Your task to perform on an android device: Open calendar and show me the first week of next month Image 0: 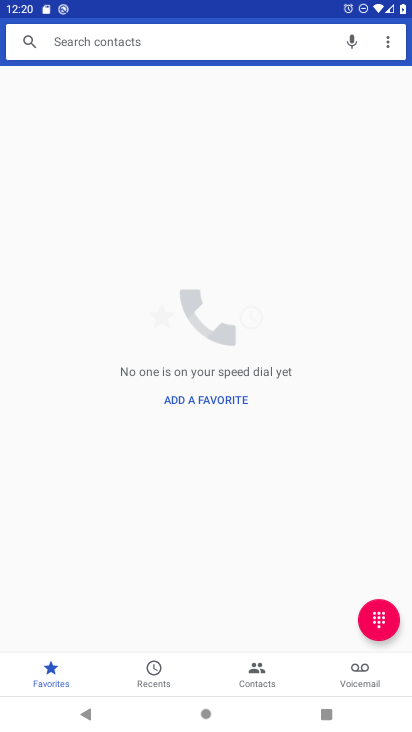
Step 0: press home button
Your task to perform on an android device: Open calendar and show me the first week of next month Image 1: 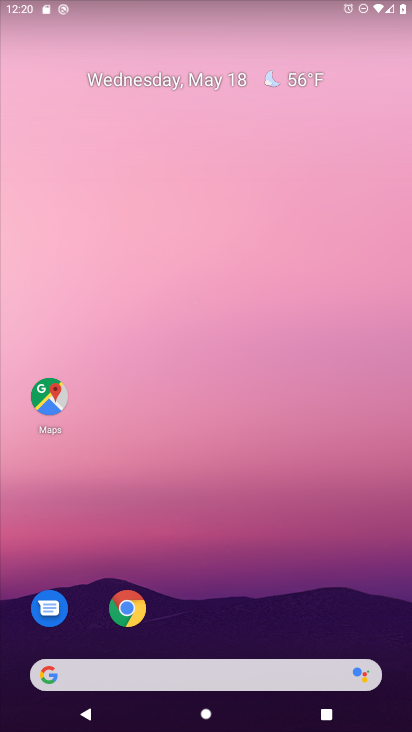
Step 1: drag from (279, 680) to (334, 115)
Your task to perform on an android device: Open calendar and show me the first week of next month Image 2: 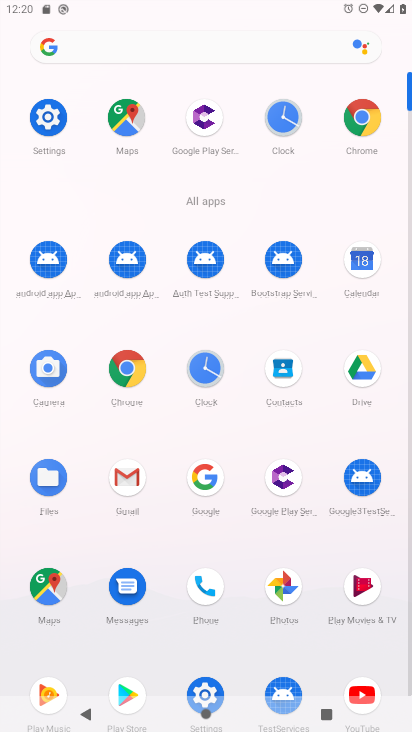
Step 2: click (353, 275)
Your task to perform on an android device: Open calendar and show me the first week of next month Image 3: 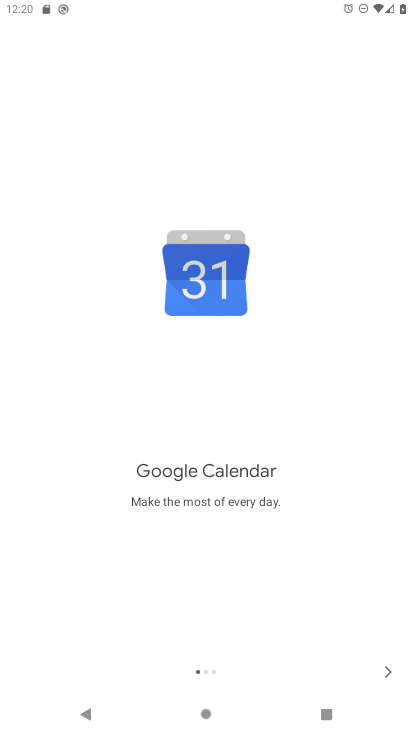
Step 3: click (376, 670)
Your task to perform on an android device: Open calendar and show me the first week of next month Image 4: 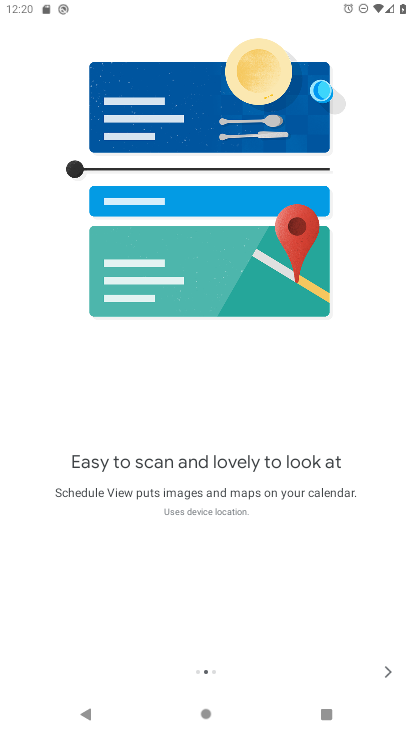
Step 4: click (376, 670)
Your task to perform on an android device: Open calendar and show me the first week of next month Image 5: 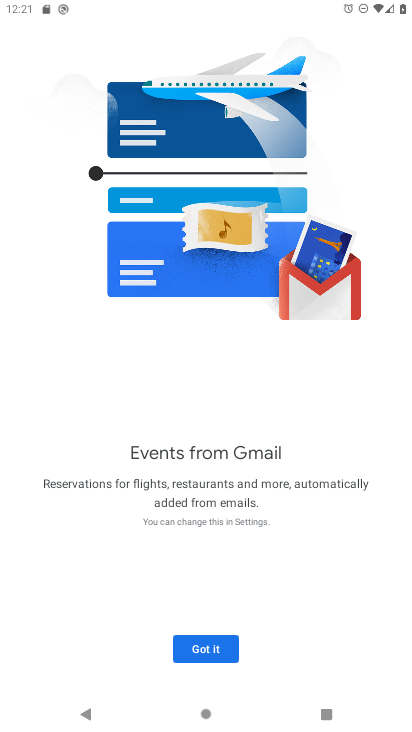
Step 5: click (217, 648)
Your task to perform on an android device: Open calendar and show me the first week of next month Image 6: 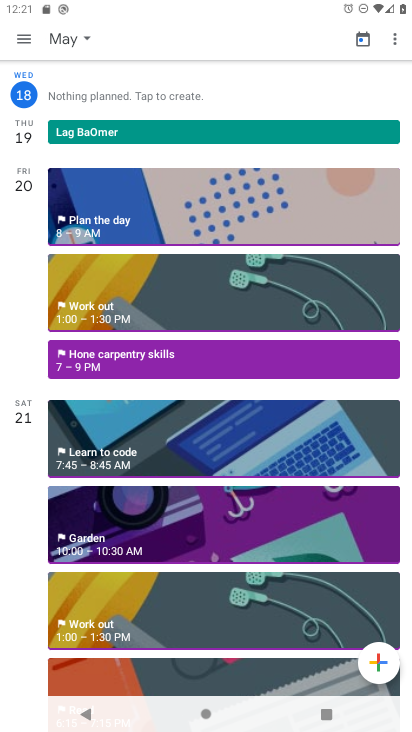
Step 6: click (18, 48)
Your task to perform on an android device: Open calendar and show me the first week of next month Image 7: 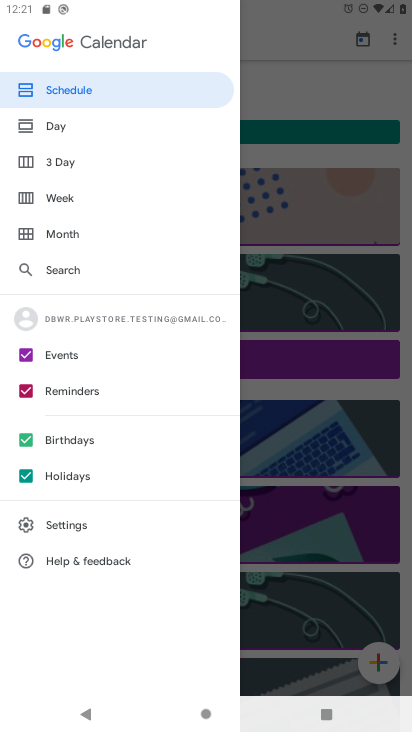
Step 7: click (71, 234)
Your task to perform on an android device: Open calendar and show me the first week of next month Image 8: 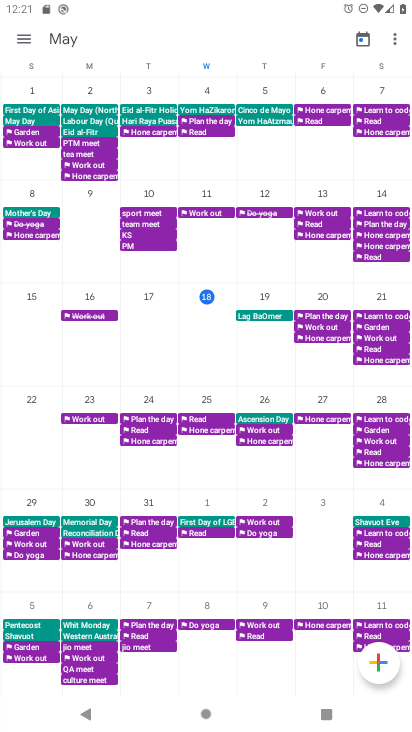
Step 8: drag from (354, 423) to (0, 374)
Your task to perform on an android device: Open calendar and show me the first week of next month Image 9: 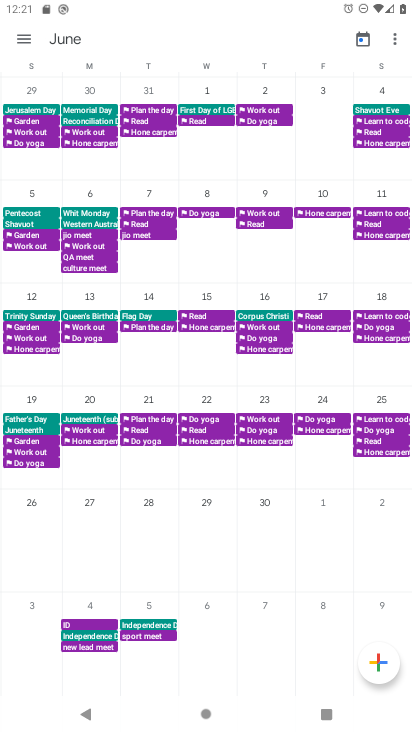
Step 9: click (206, 94)
Your task to perform on an android device: Open calendar and show me the first week of next month Image 10: 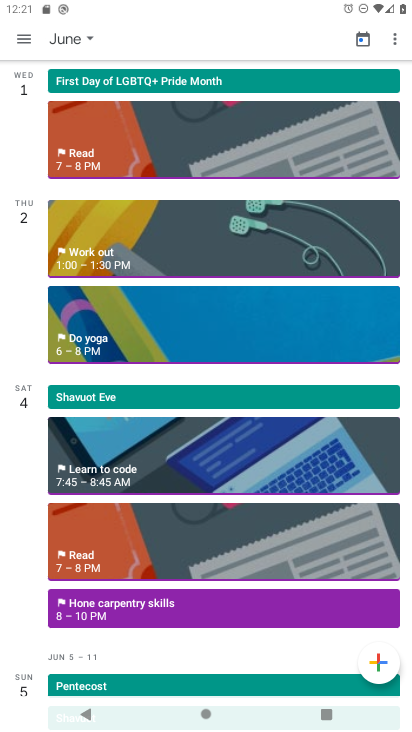
Step 10: task complete